Your task to perform on an android device: Open location settings Image 0: 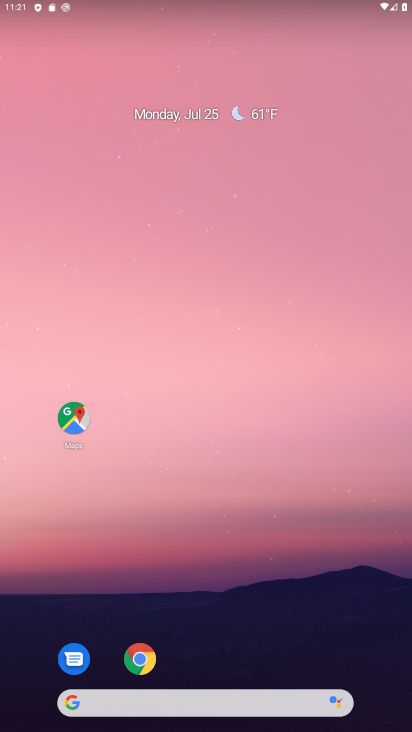
Step 0: click (187, 94)
Your task to perform on an android device: Open location settings Image 1: 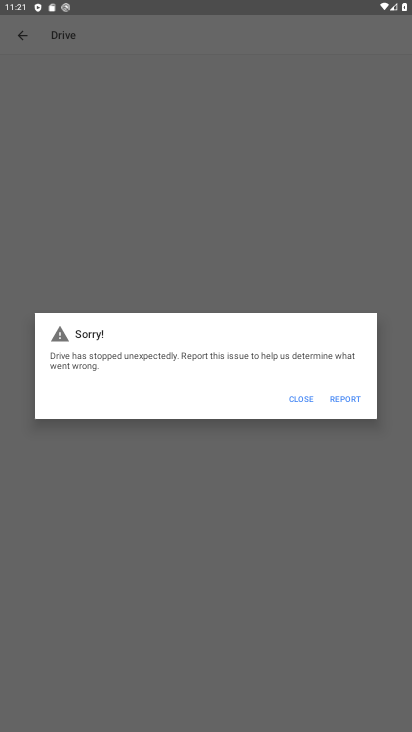
Step 1: press home button
Your task to perform on an android device: Open location settings Image 2: 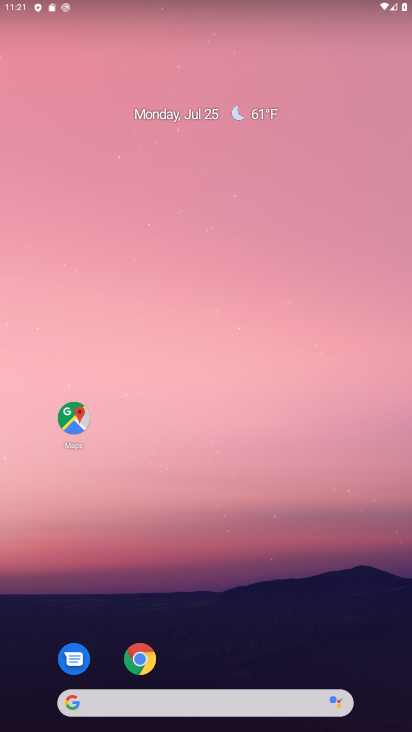
Step 2: drag from (218, 723) to (213, 131)
Your task to perform on an android device: Open location settings Image 3: 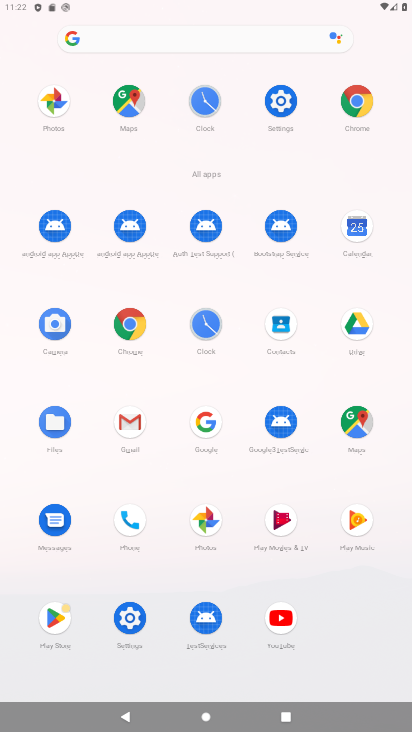
Step 3: click (279, 98)
Your task to perform on an android device: Open location settings Image 4: 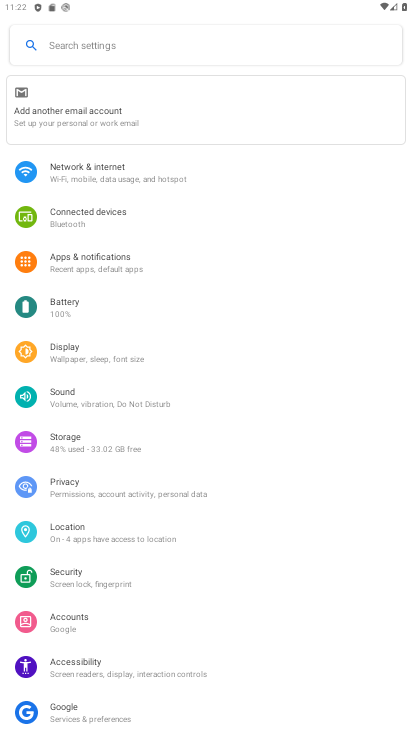
Step 4: click (68, 530)
Your task to perform on an android device: Open location settings Image 5: 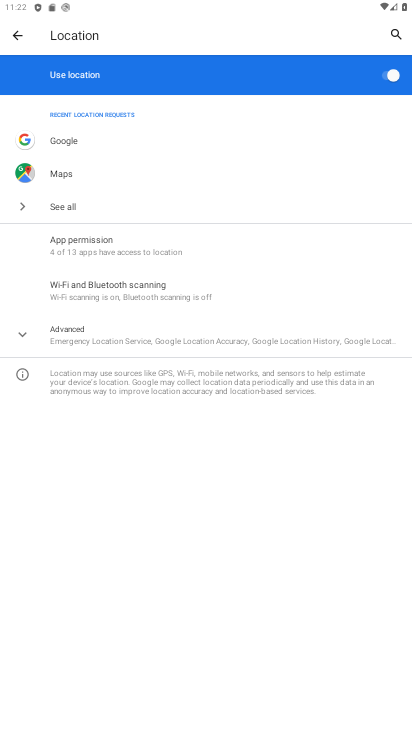
Step 5: task complete